Your task to perform on an android device: toggle notifications settings in the gmail app Image 0: 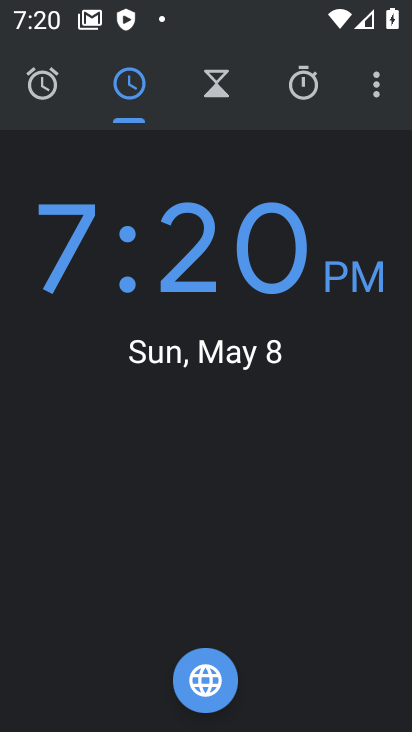
Step 0: press home button
Your task to perform on an android device: toggle notifications settings in the gmail app Image 1: 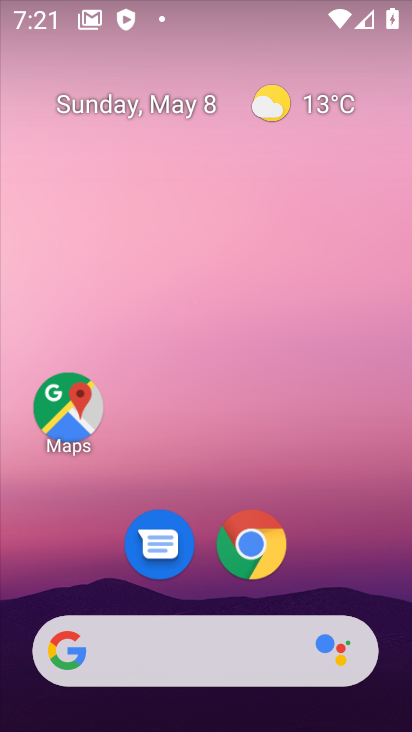
Step 1: drag from (335, 558) to (244, 40)
Your task to perform on an android device: toggle notifications settings in the gmail app Image 2: 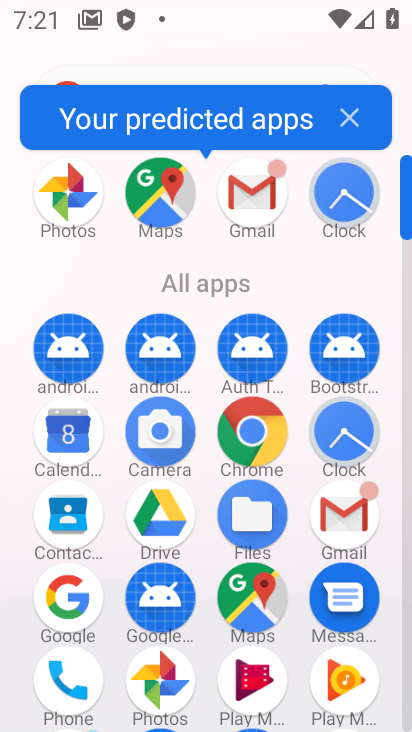
Step 2: click (250, 192)
Your task to perform on an android device: toggle notifications settings in the gmail app Image 3: 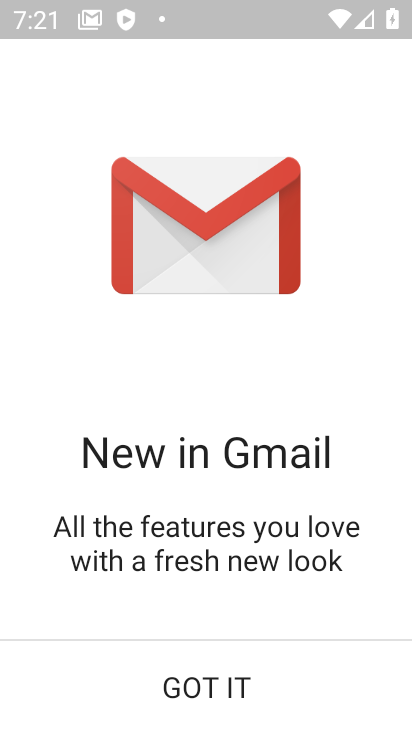
Step 3: click (212, 691)
Your task to perform on an android device: toggle notifications settings in the gmail app Image 4: 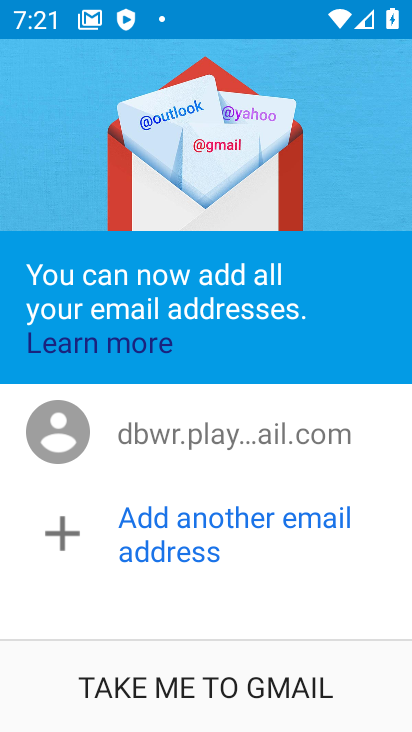
Step 4: click (212, 688)
Your task to perform on an android device: toggle notifications settings in the gmail app Image 5: 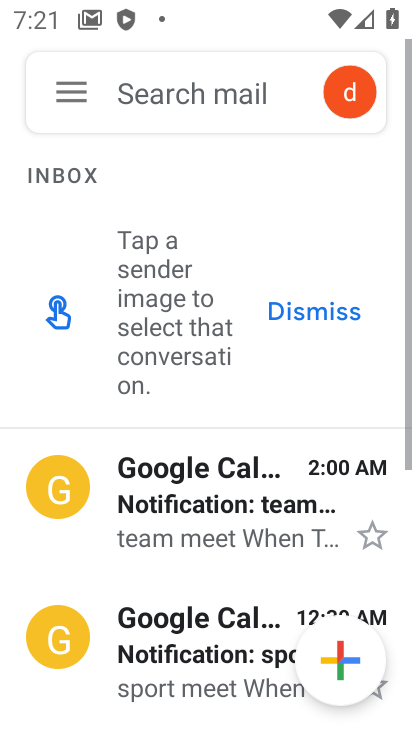
Step 5: click (73, 90)
Your task to perform on an android device: toggle notifications settings in the gmail app Image 6: 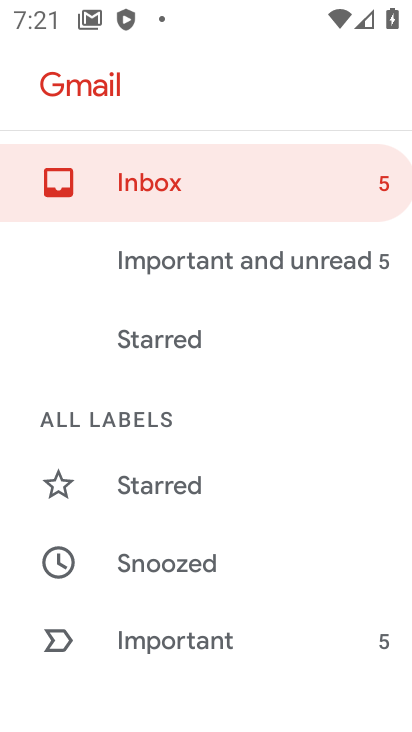
Step 6: drag from (263, 572) to (221, 268)
Your task to perform on an android device: toggle notifications settings in the gmail app Image 7: 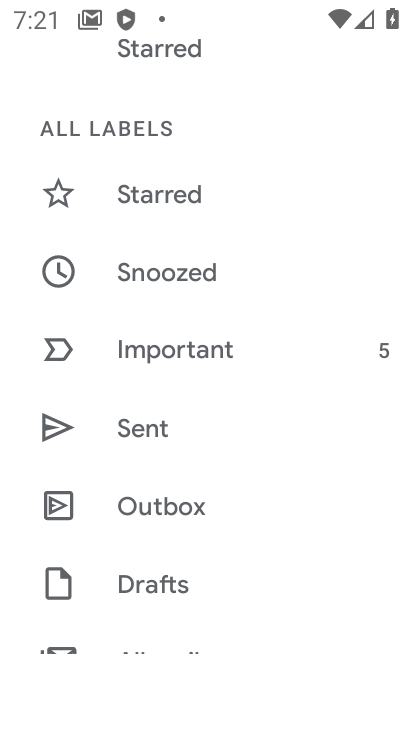
Step 7: drag from (213, 616) to (212, 174)
Your task to perform on an android device: toggle notifications settings in the gmail app Image 8: 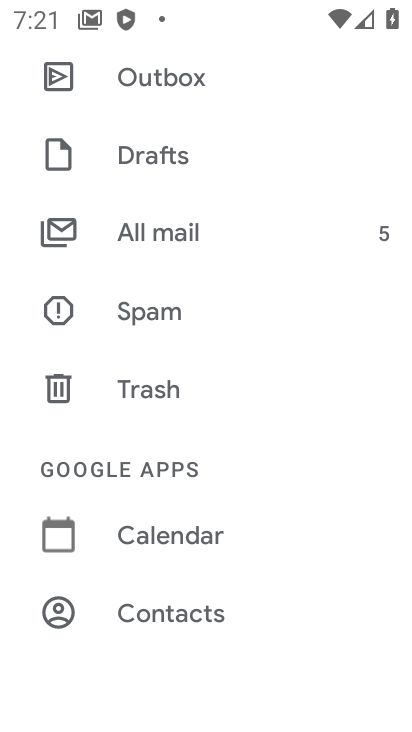
Step 8: drag from (202, 572) to (214, 294)
Your task to perform on an android device: toggle notifications settings in the gmail app Image 9: 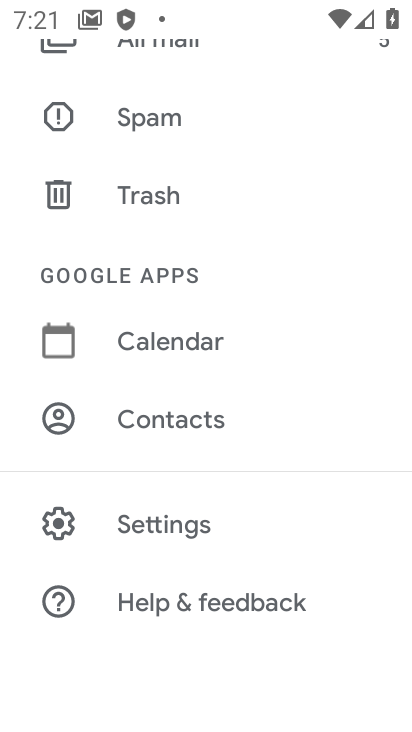
Step 9: click (136, 517)
Your task to perform on an android device: toggle notifications settings in the gmail app Image 10: 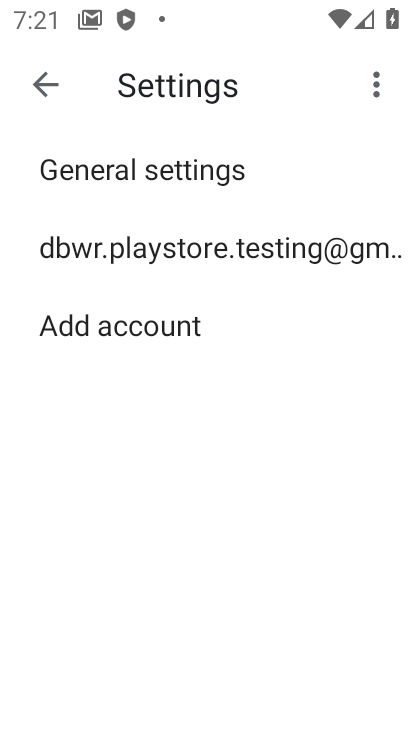
Step 10: click (116, 161)
Your task to perform on an android device: toggle notifications settings in the gmail app Image 11: 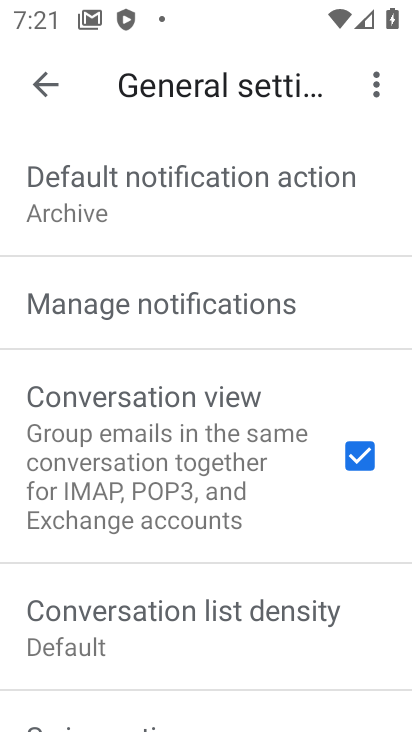
Step 11: click (109, 306)
Your task to perform on an android device: toggle notifications settings in the gmail app Image 12: 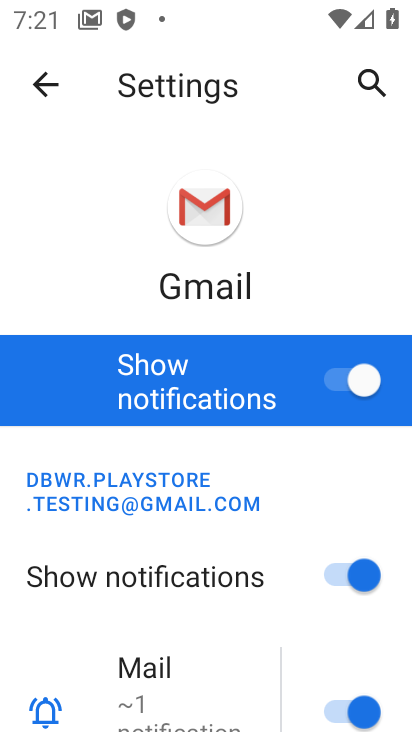
Step 12: click (360, 385)
Your task to perform on an android device: toggle notifications settings in the gmail app Image 13: 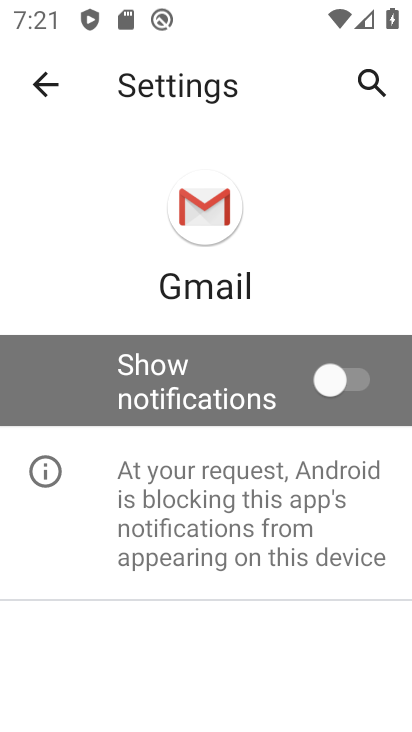
Step 13: task complete